Your task to perform on an android device: Do I have any events today? Image 0: 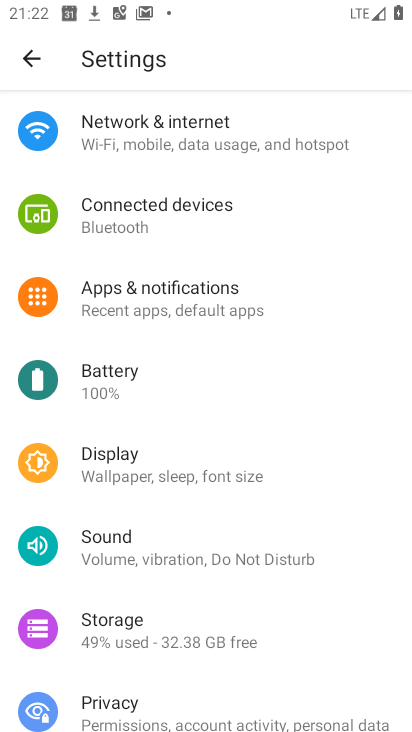
Step 0: press home button
Your task to perform on an android device: Do I have any events today? Image 1: 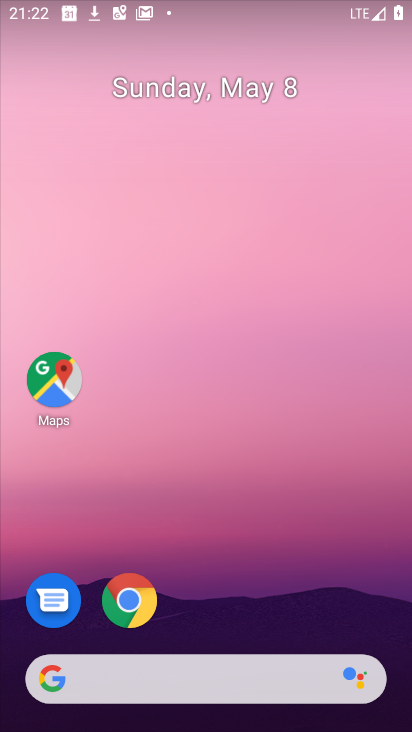
Step 1: drag from (253, 713) to (281, 248)
Your task to perform on an android device: Do I have any events today? Image 2: 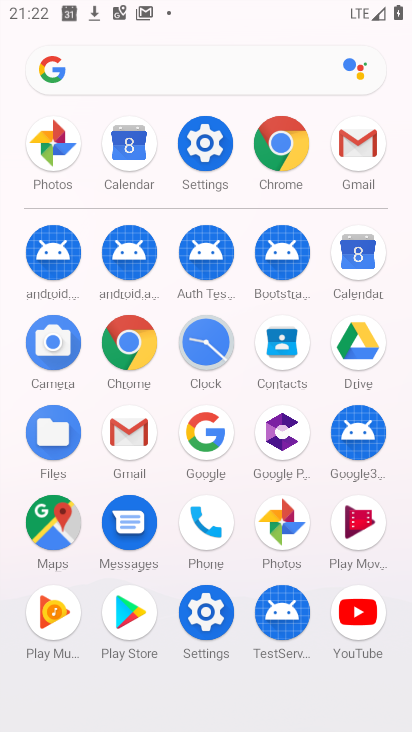
Step 2: click (358, 261)
Your task to perform on an android device: Do I have any events today? Image 3: 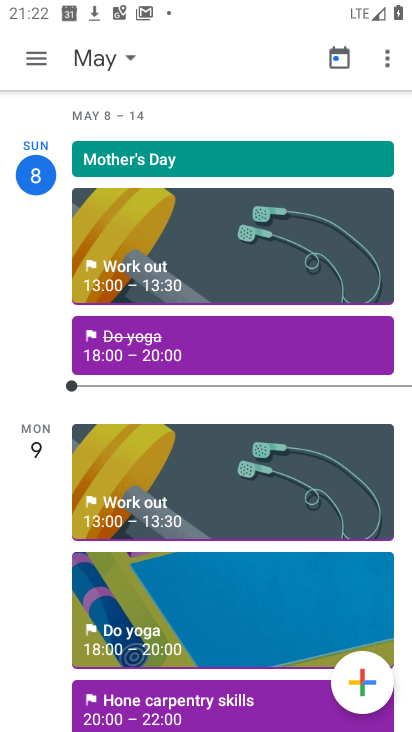
Step 3: task complete